Your task to perform on an android device: see tabs open on other devices in the chrome app Image 0: 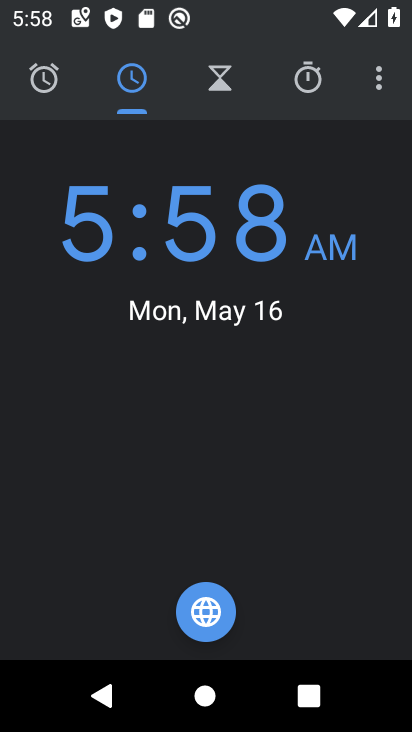
Step 0: press home button
Your task to perform on an android device: see tabs open on other devices in the chrome app Image 1: 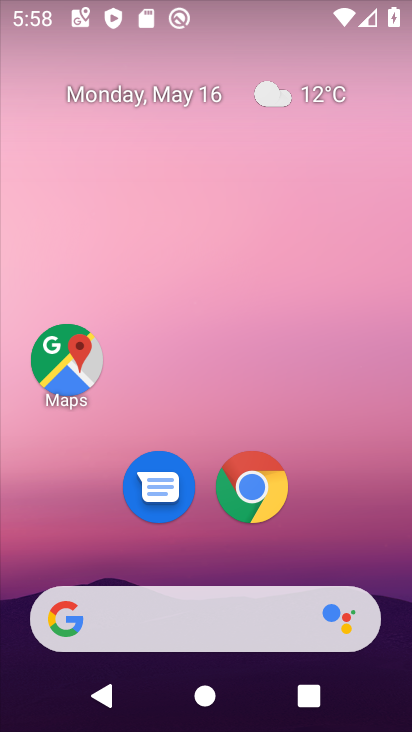
Step 1: click (256, 480)
Your task to perform on an android device: see tabs open on other devices in the chrome app Image 2: 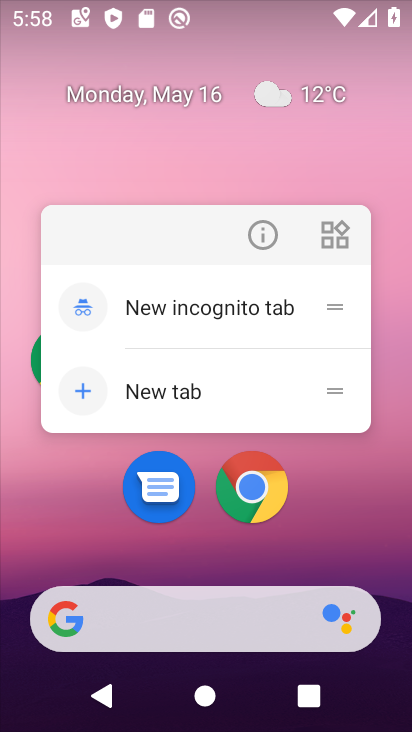
Step 2: click (256, 480)
Your task to perform on an android device: see tabs open on other devices in the chrome app Image 3: 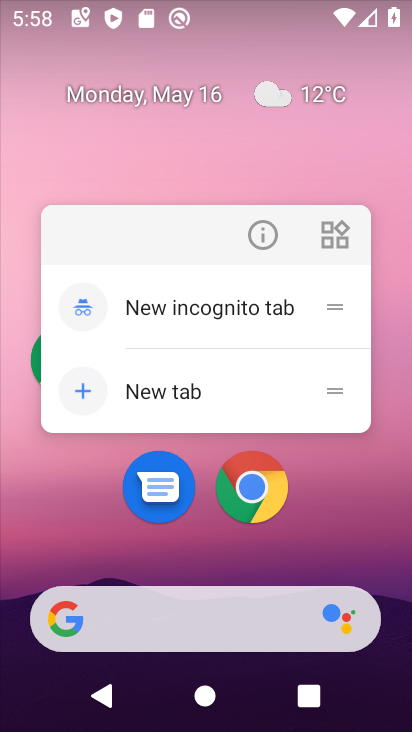
Step 3: click (256, 485)
Your task to perform on an android device: see tabs open on other devices in the chrome app Image 4: 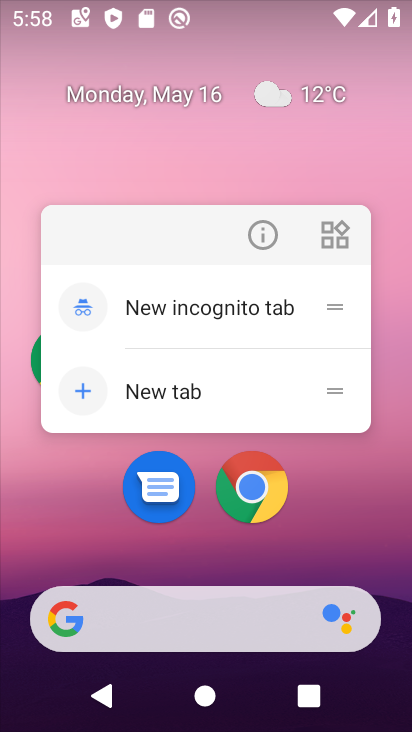
Step 4: click (252, 494)
Your task to perform on an android device: see tabs open on other devices in the chrome app Image 5: 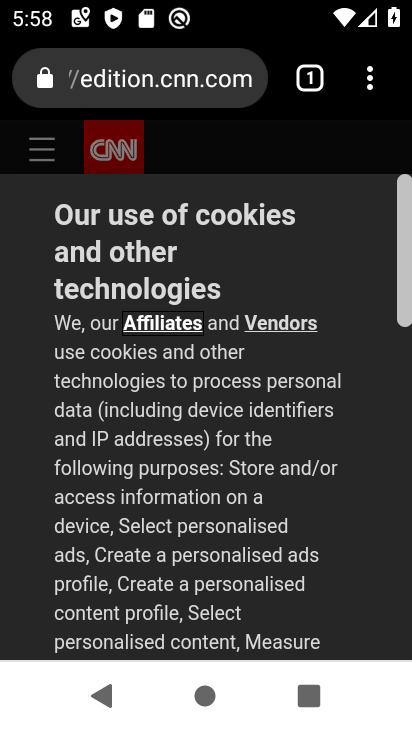
Step 5: task complete